Your task to perform on an android device: Search for "bose soundlink" on bestbuy, select the first entry, add it to the cart, then select checkout. Image 0: 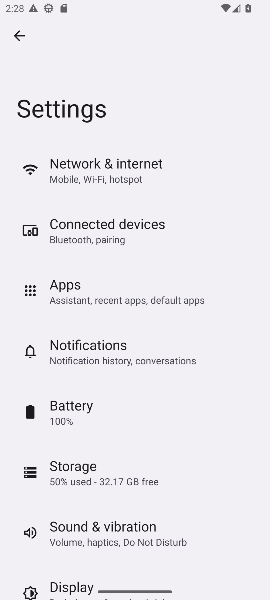
Step 0: press home button
Your task to perform on an android device: Search for "bose soundlink" on bestbuy, select the first entry, add it to the cart, then select checkout. Image 1: 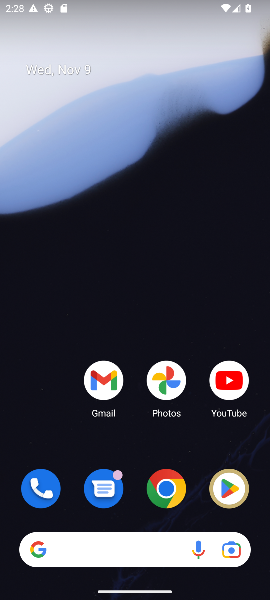
Step 1: drag from (207, 519) to (161, 80)
Your task to perform on an android device: Search for "bose soundlink" on bestbuy, select the first entry, add it to the cart, then select checkout. Image 2: 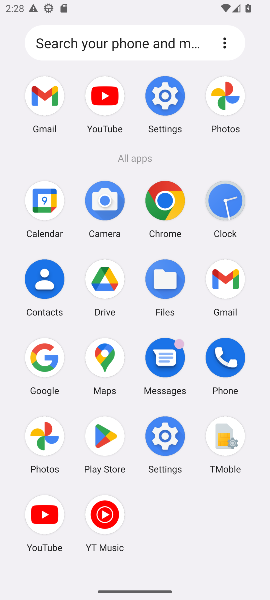
Step 2: click (160, 203)
Your task to perform on an android device: Search for "bose soundlink" on bestbuy, select the first entry, add it to the cart, then select checkout. Image 3: 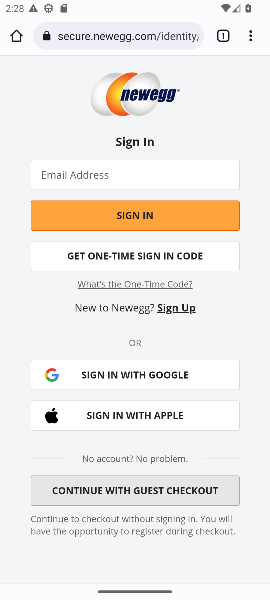
Step 3: click (154, 32)
Your task to perform on an android device: Search for "bose soundlink" on bestbuy, select the first entry, add it to the cart, then select checkout. Image 4: 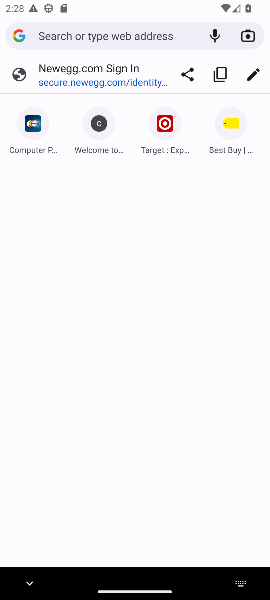
Step 4: type "bestbuy.com"
Your task to perform on an android device: Search for "bose soundlink" on bestbuy, select the first entry, add it to the cart, then select checkout. Image 5: 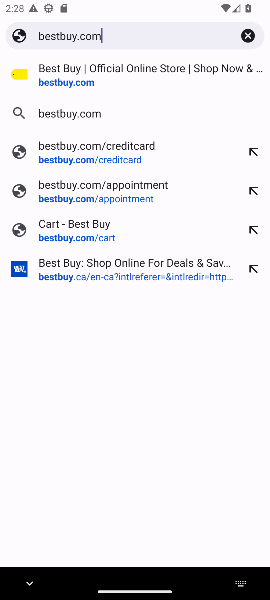
Step 5: press enter
Your task to perform on an android device: Search for "bose soundlink" on bestbuy, select the first entry, add it to the cart, then select checkout. Image 6: 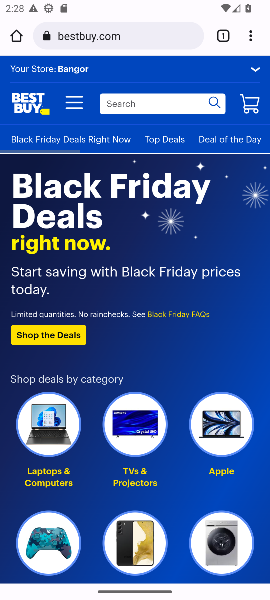
Step 6: click (180, 99)
Your task to perform on an android device: Search for "bose soundlink" on bestbuy, select the first entry, add it to the cart, then select checkout. Image 7: 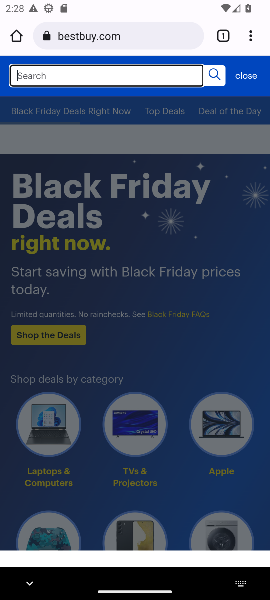
Step 7: type "bose soundlink"
Your task to perform on an android device: Search for "bose soundlink" on bestbuy, select the first entry, add it to the cart, then select checkout. Image 8: 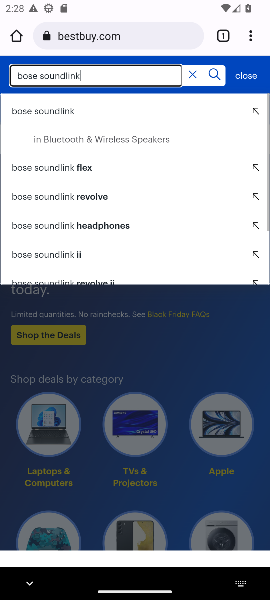
Step 8: press enter
Your task to perform on an android device: Search for "bose soundlink" on bestbuy, select the first entry, add it to the cart, then select checkout. Image 9: 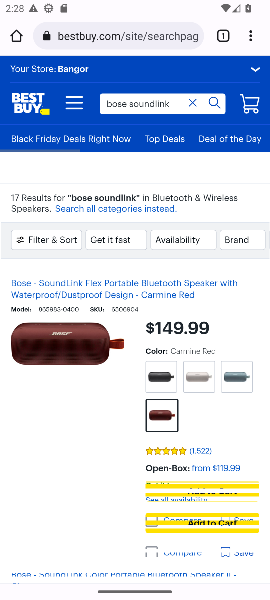
Step 9: click (88, 292)
Your task to perform on an android device: Search for "bose soundlink" on bestbuy, select the first entry, add it to the cart, then select checkout. Image 10: 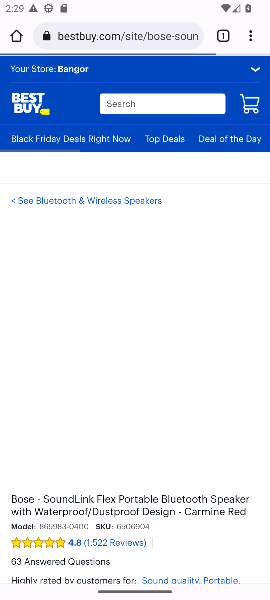
Step 10: drag from (186, 475) to (180, 222)
Your task to perform on an android device: Search for "bose soundlink" on bestbuy, select the first entry, add it to the cart, then select checkout. Image 11: 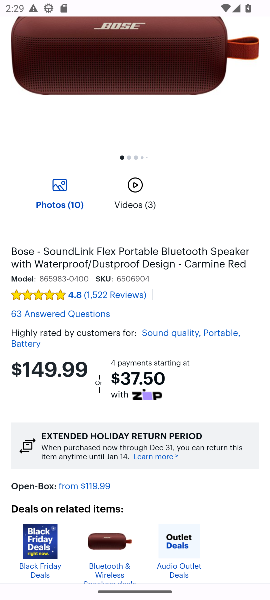
Step 11: drag from (167, 414) to (144, 122)
Your task to perform on an android device: Search for "bose soundlink" on bestbuy, select the first entry, add it to the cart, then select checkout. Image 12: 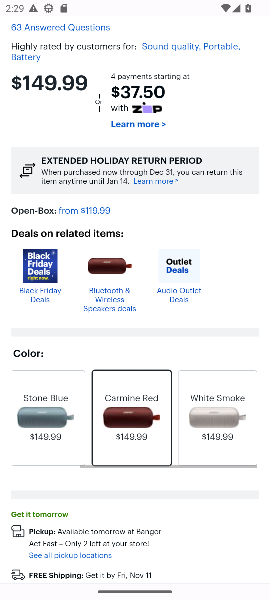
Step 12: drag from (154, 468) to (138, 166)
Your task to perform on an android device: Search for "bose soundlink" on bestbuy, select the first entry, add it to the cart, then select checkout. Image 13: 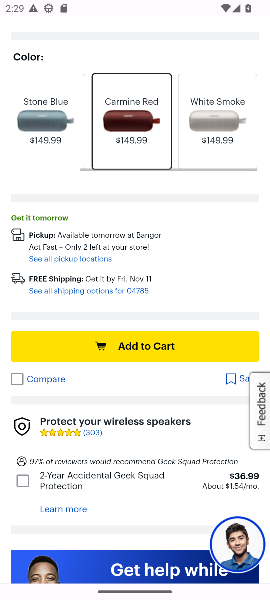
Step 13: click (145, 343)
Your task to perform on an android device: Search for "bose soundlink" on bestbuy, select the first entry, add it to the cart, then select checkout. Image 14: 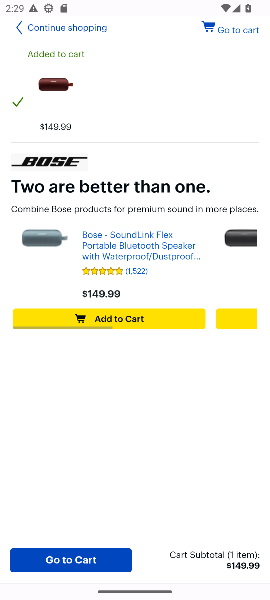
Step 14: click (79, 559)
Your task to perform on an android device: Search for "bose soundlink" on bestbuy, select the first entry, add it to the cart, then select checkout. Image 15: 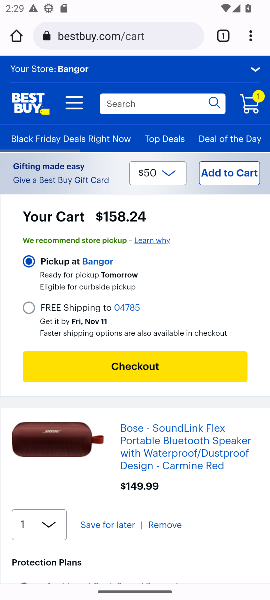
Step 15: click (123, 374)
Your task to perform on an android device: Search for "bose soundlink" on bestbuy, select the first entry, add it to the cart, then select checkout. Image 16: 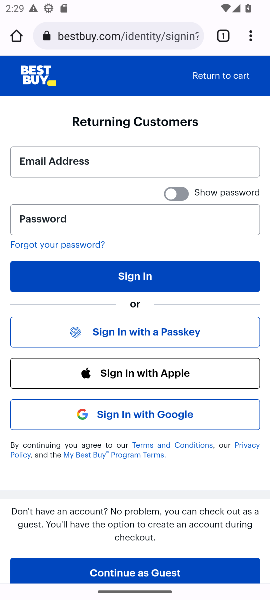
Step 16: task complete